Your task to perform on an android device: change timer sound Image 0: 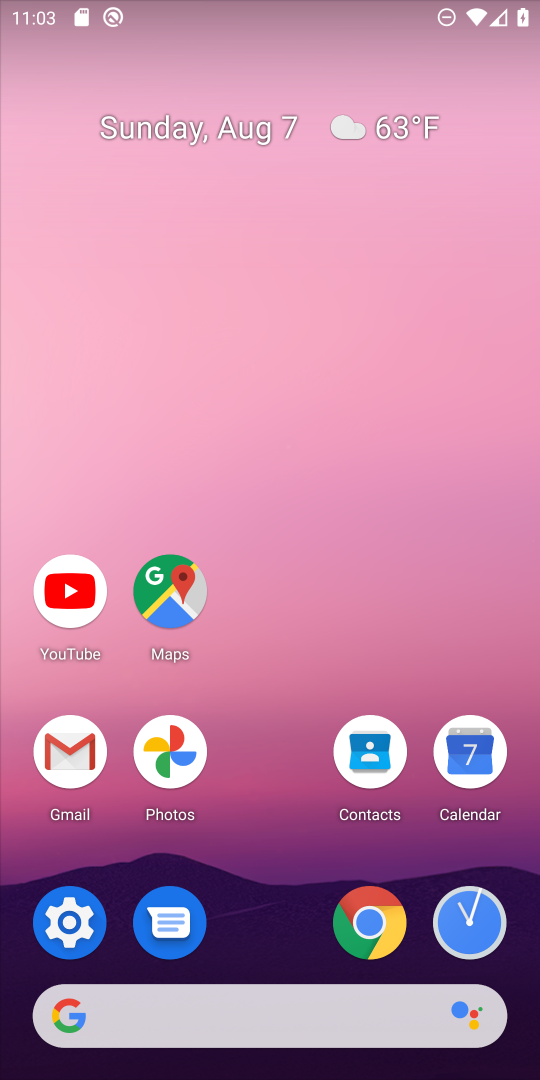
Step 0: click (471, 938)
Your task to perform on an android device: change timer sound Image 1: 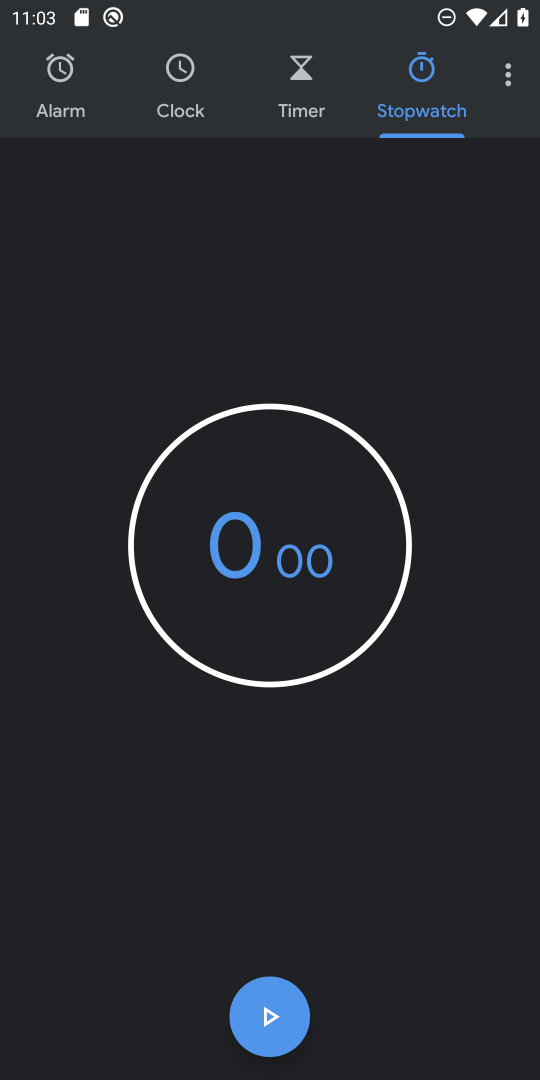
Step 1: click (509, 78)
Your task to perform on an android device: change timer sound Image 2: 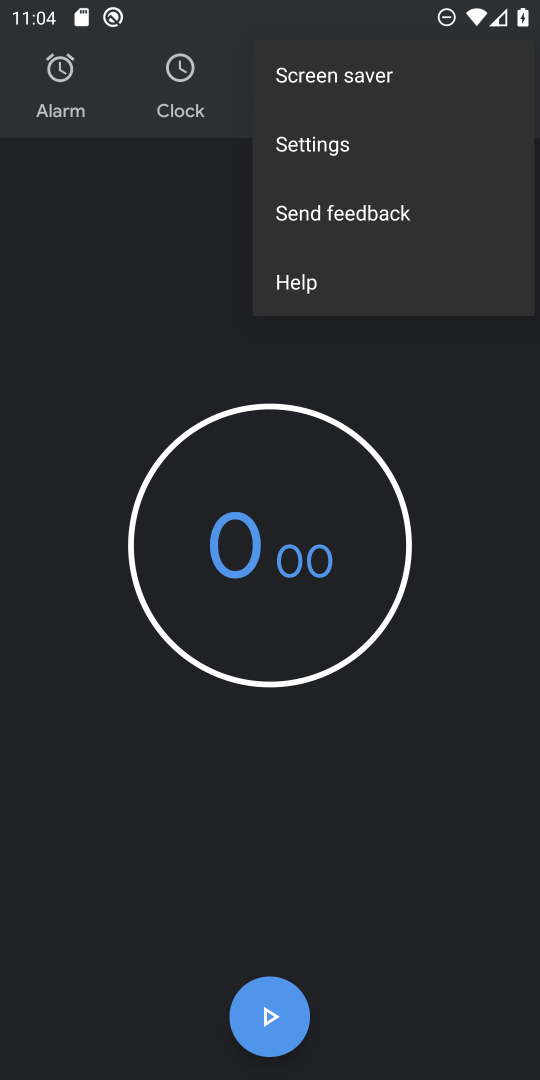
Step 2: click (311, 158)
Your task to perform on an android device: change timer sound Image 3: 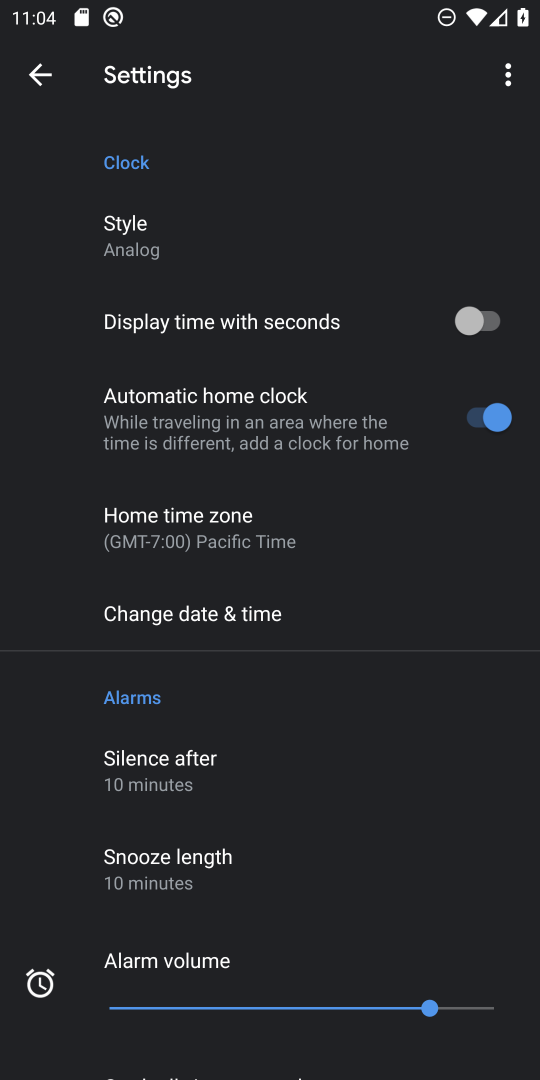
Step 3: drag from (330, 941) to (317, 550)
Your task to perform on an android device: change timer sound Image 4: 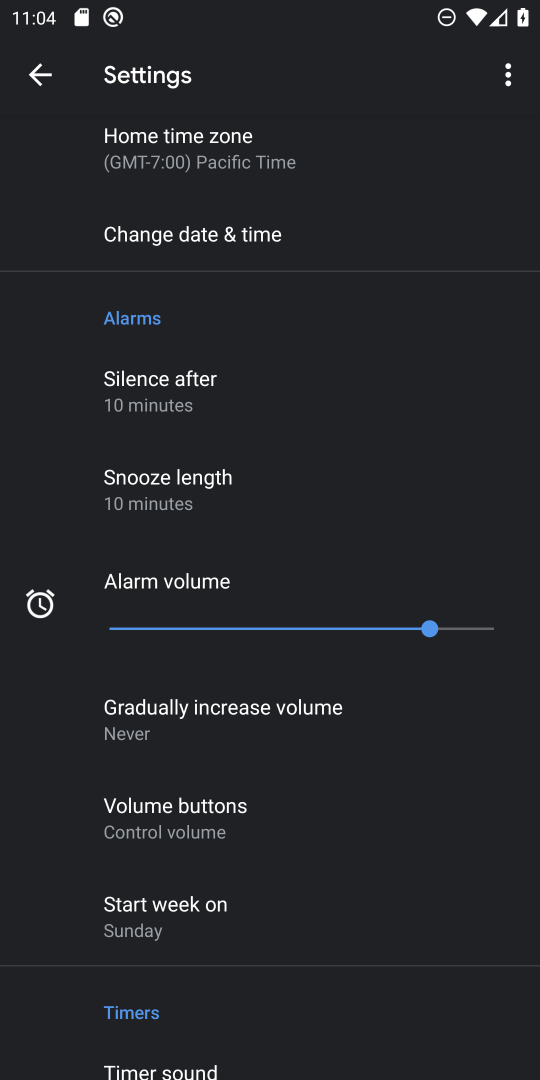
Step 4: drag from (317, 804) to (383, 335)
Your task to perform on an android device: change timer sound Image 5: 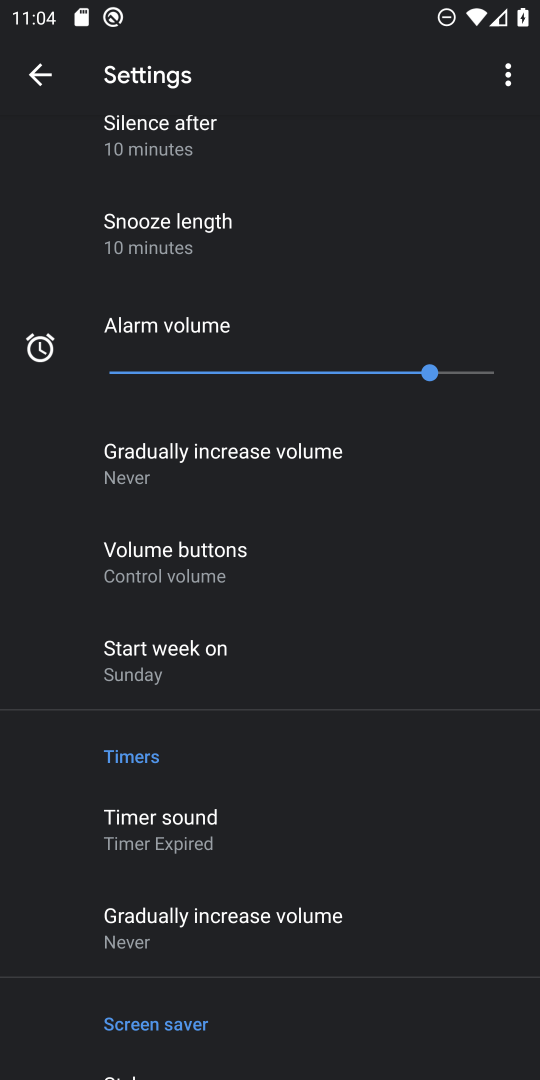
Step 5: click (181, 809)
Your task to perform on an android device: change timer sound Image 6: 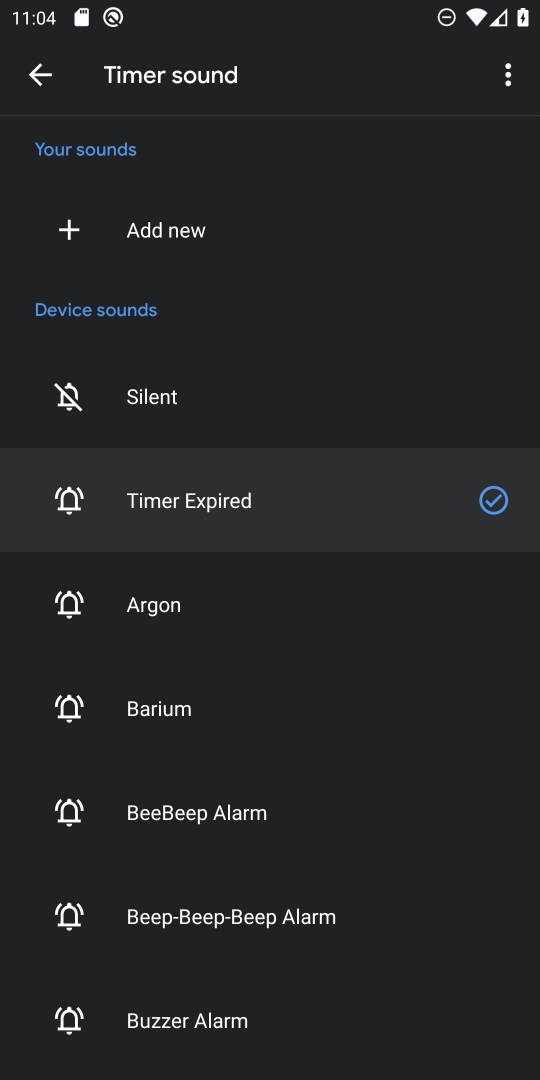
Step 6: click (171, 614)
Your task to perform on an android device: change timer sound Image 7: 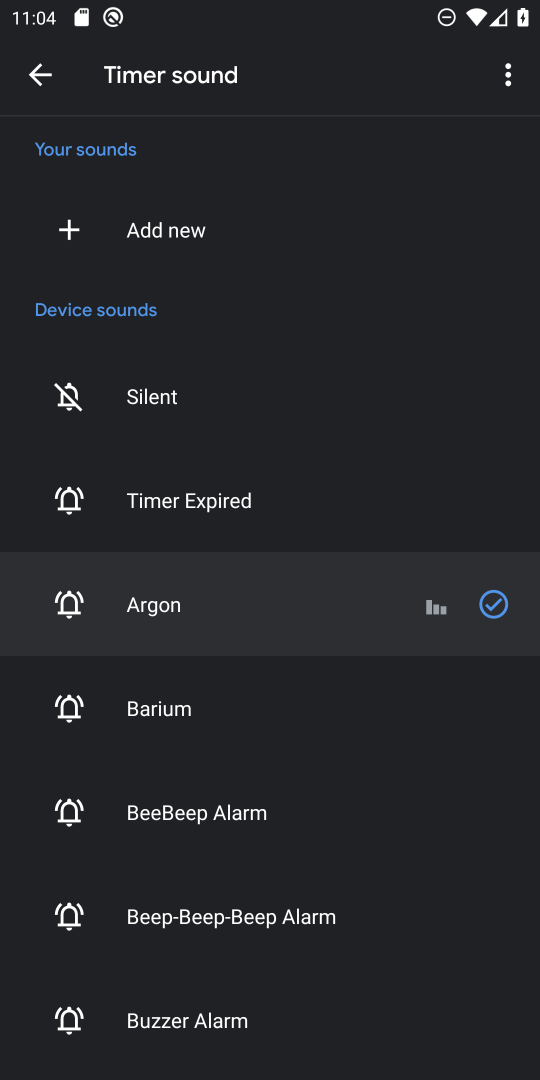
Step 7: task complete